Your task to perform on an android device: change alarm snooze length Image 0: 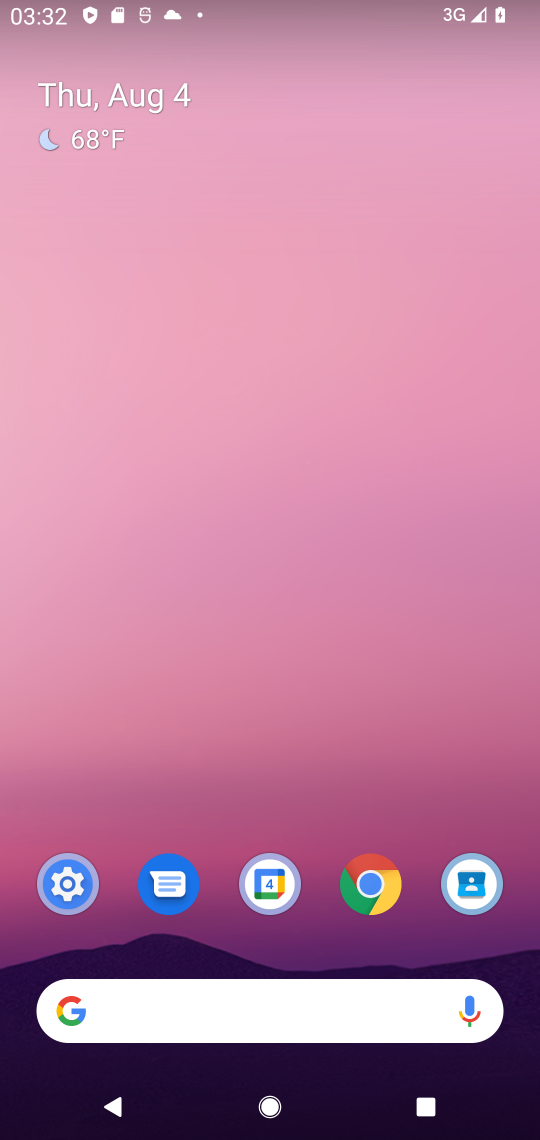
Step 0: press home button
Your task to perform on an android device: change alarm snooze length Image 1: 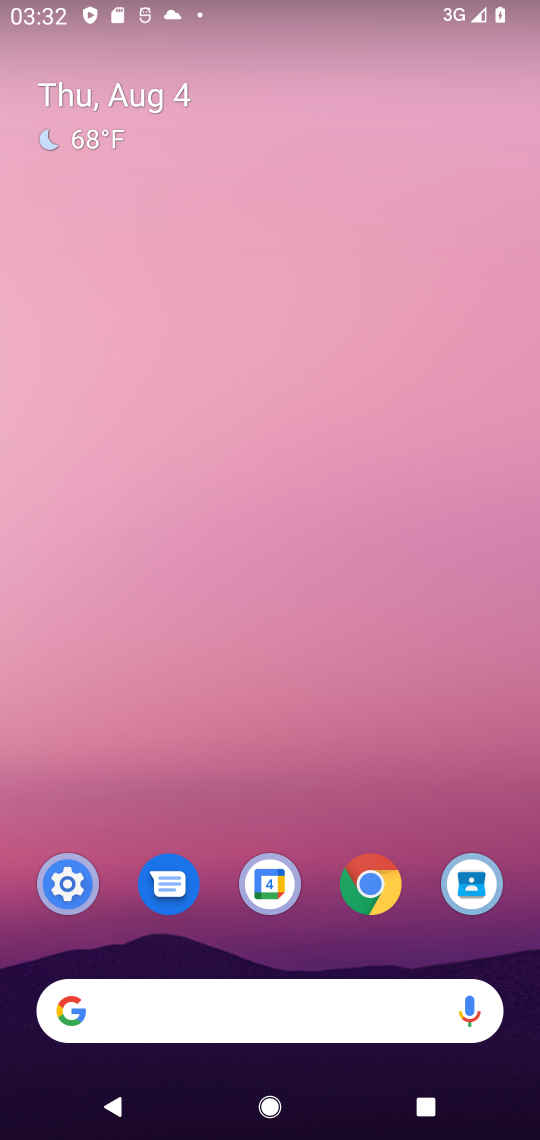
Step 1: drag from (315, 908) to (333, 329)
Your task to perform on an android device: change alarm snooze length Image 2: 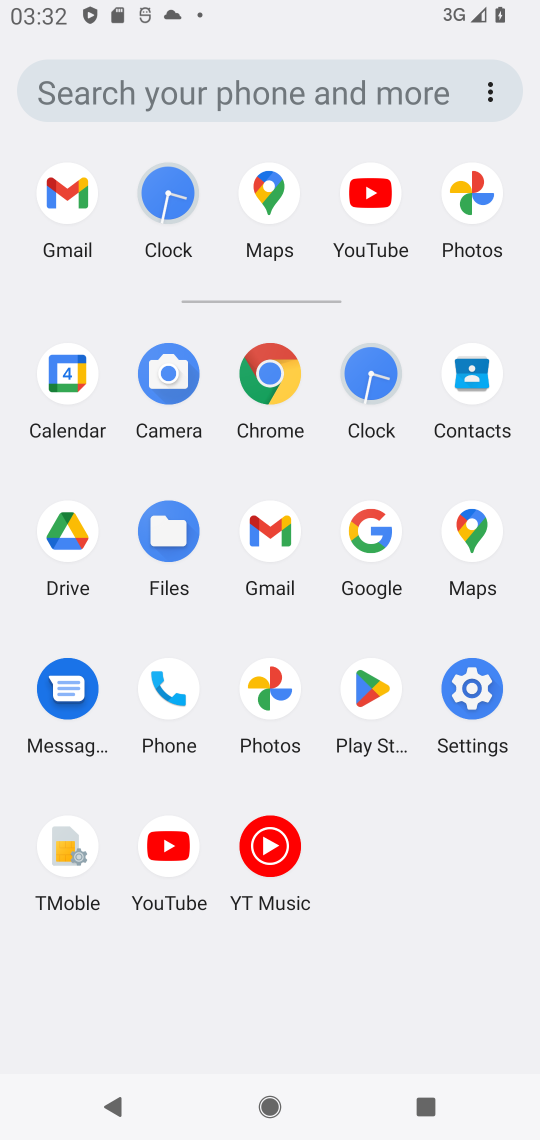
Step 2: click (381, 389)
Your task to perform on an android device: change alarm snooze length Image 3: 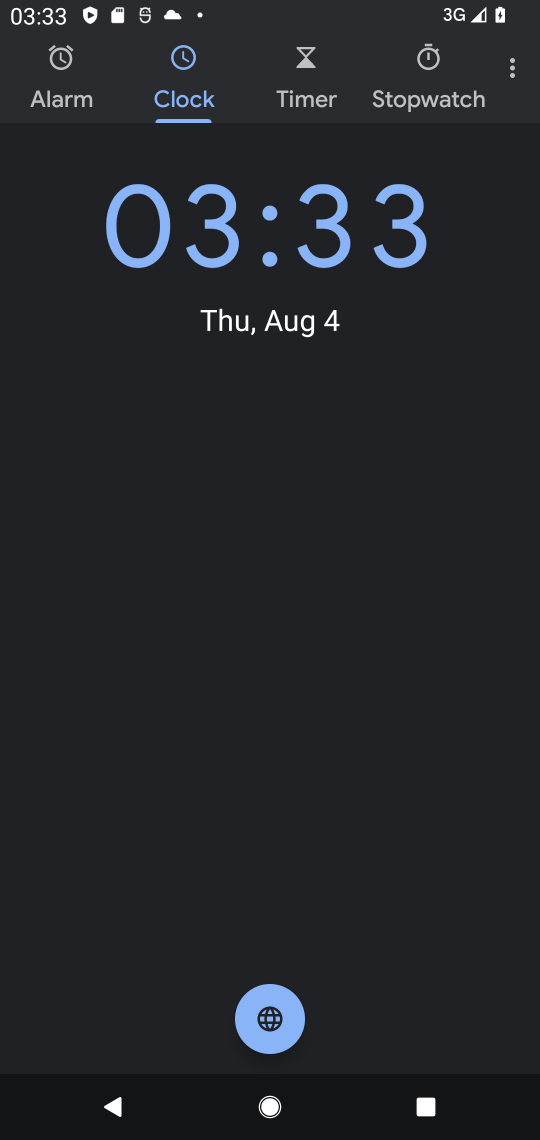
Step 3: click (514, 72)
Your task to perform on an android device: change alarm snooze length Image 4: 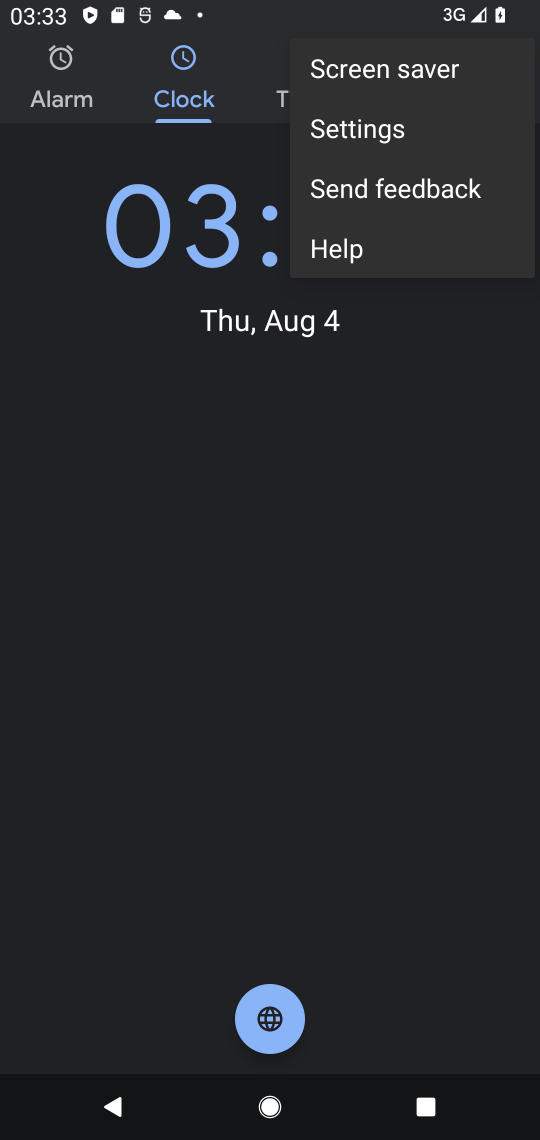
Step 4: click (428, 126)
Your task to perform on an android device: change alarm snooze length Image 5: 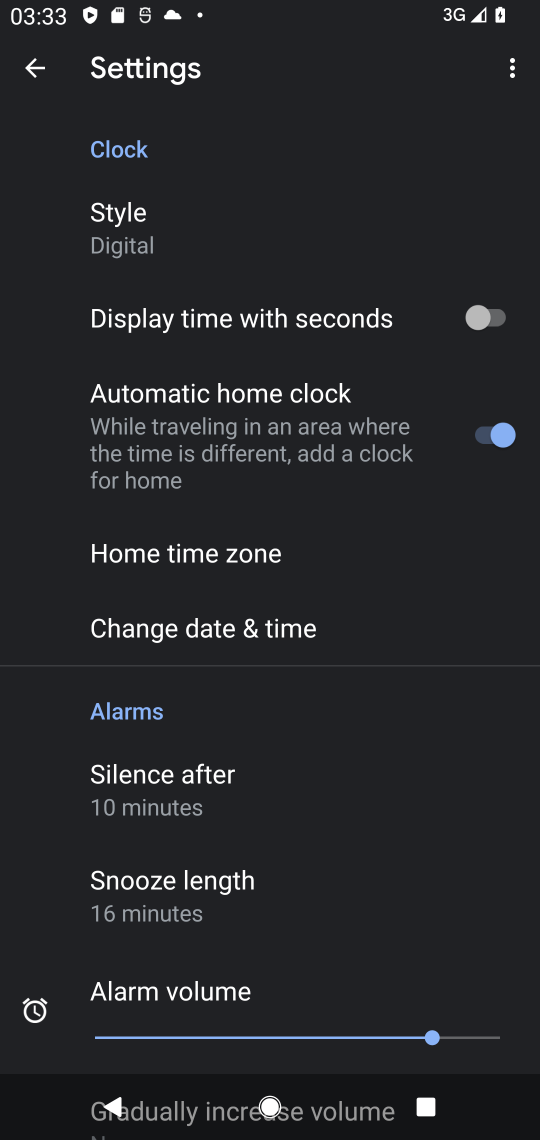
Step 5: drag from (398, 844) to (408, 657)
Your task to perform on an android device: change alarm snooze length Image 6: 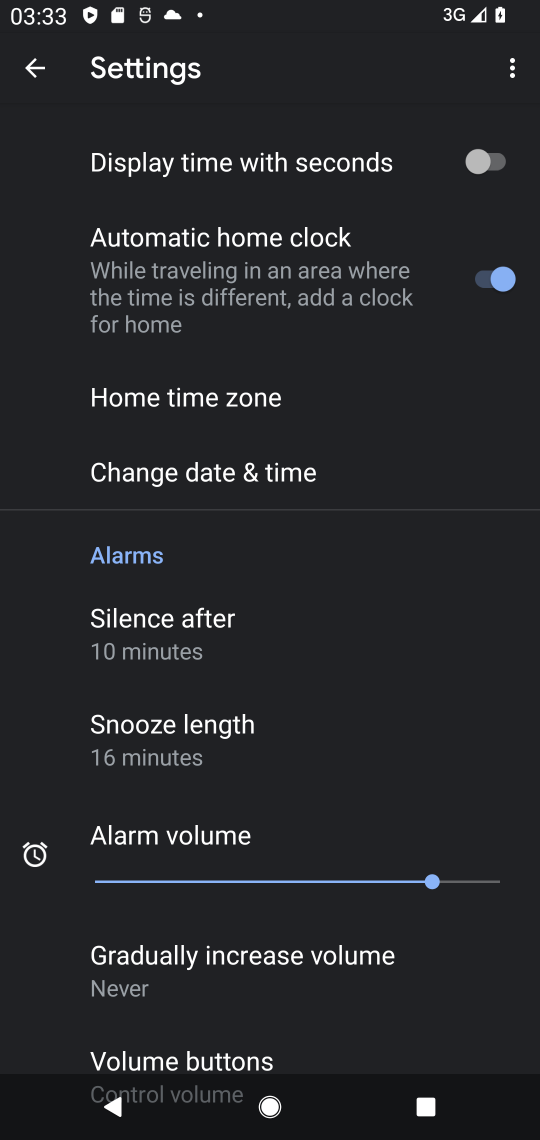
Step 6: drag from (435, 942) to (438, 781)
Your task to perform on an android device: change alarm snooze length Image 7: 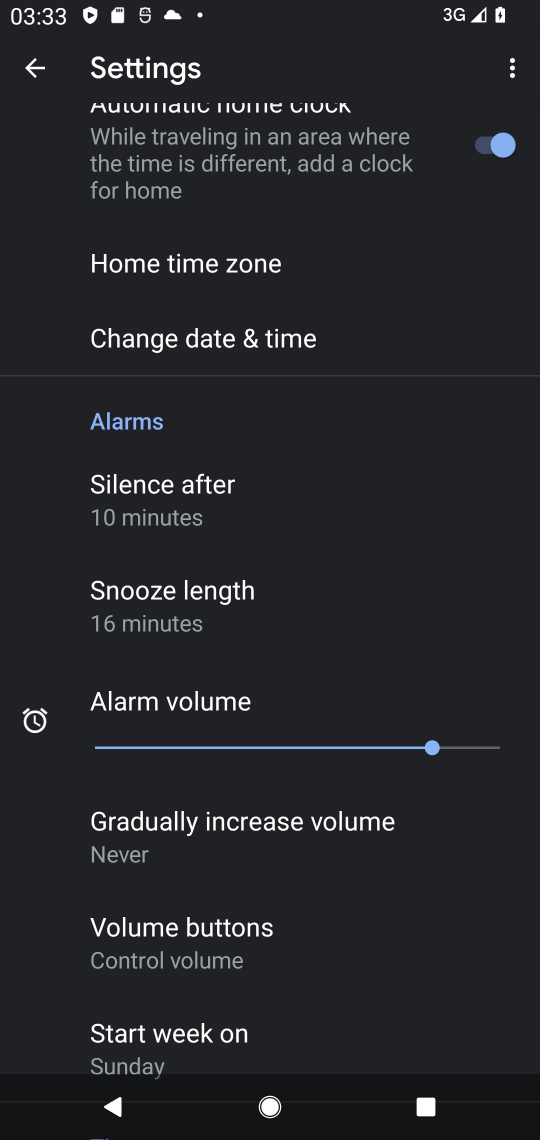
Step 7: drag from (457, 985) to (472, 806)
Your task to perform on an android device: change alarm snooze length Image 8: 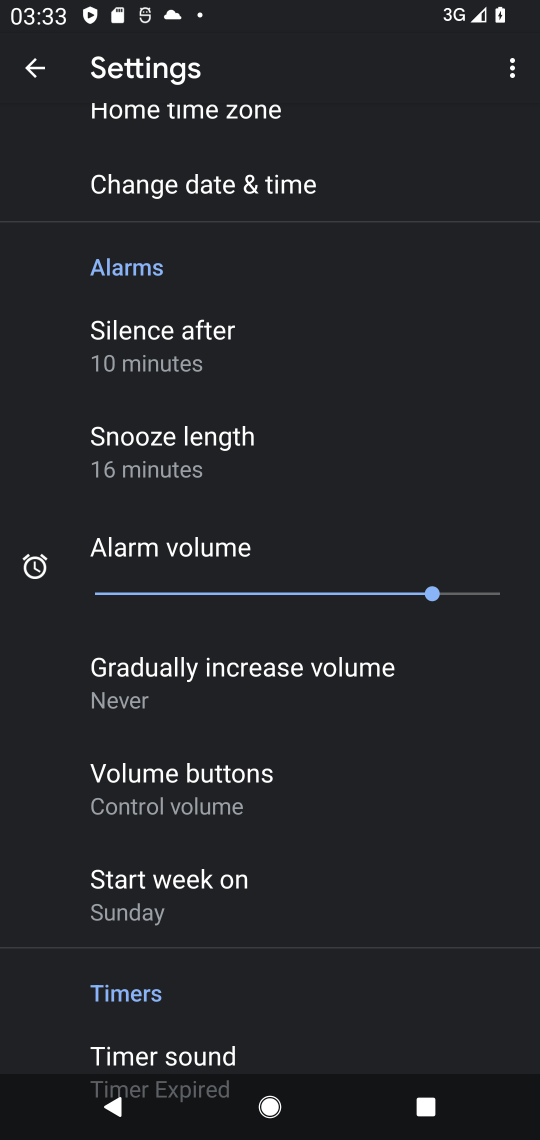
Step 8: drag from (468, 954) to (483, 763)
Your task to perform on an android device: change alarm snooze length Image 9: 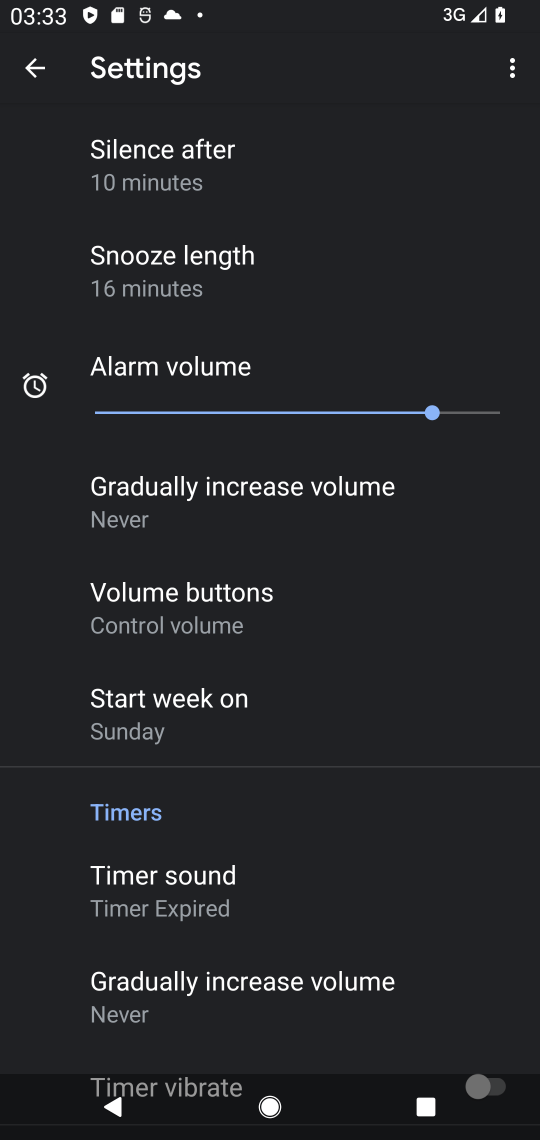
Step 9: drag from (467, 967) to (477, 764)
Your task to perform on an android device: change alarm snooze length Image 10: 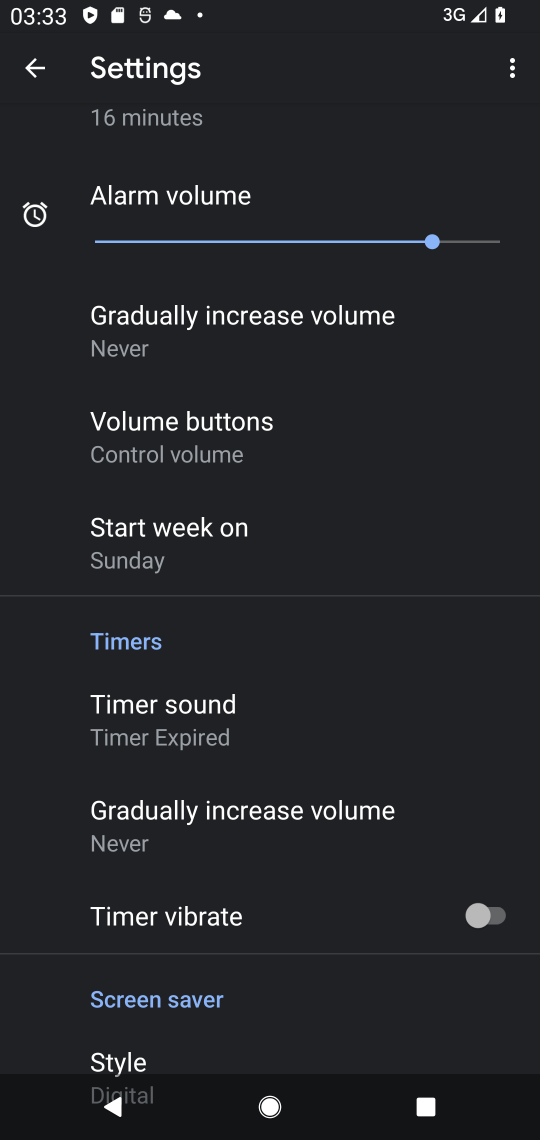
Step 10: drag from (402, 993) to (415, 773)
Your task to perform on an android device: change alarm snooze length Image 11: 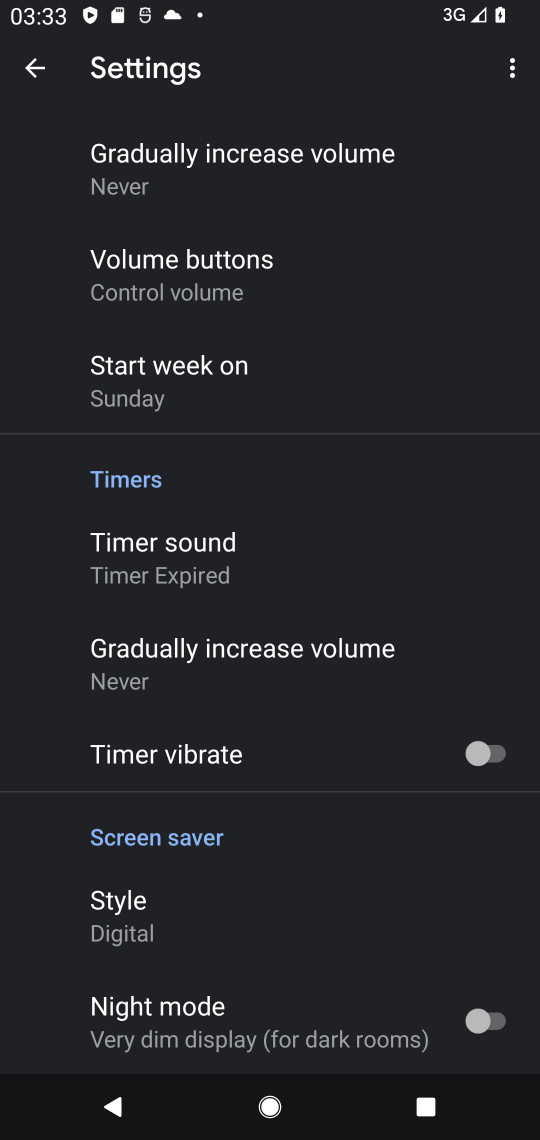
Step 11: drag from (432, 512) to (424, 742)
Your task to perform on an android device: change alarm snooze length Image 12: 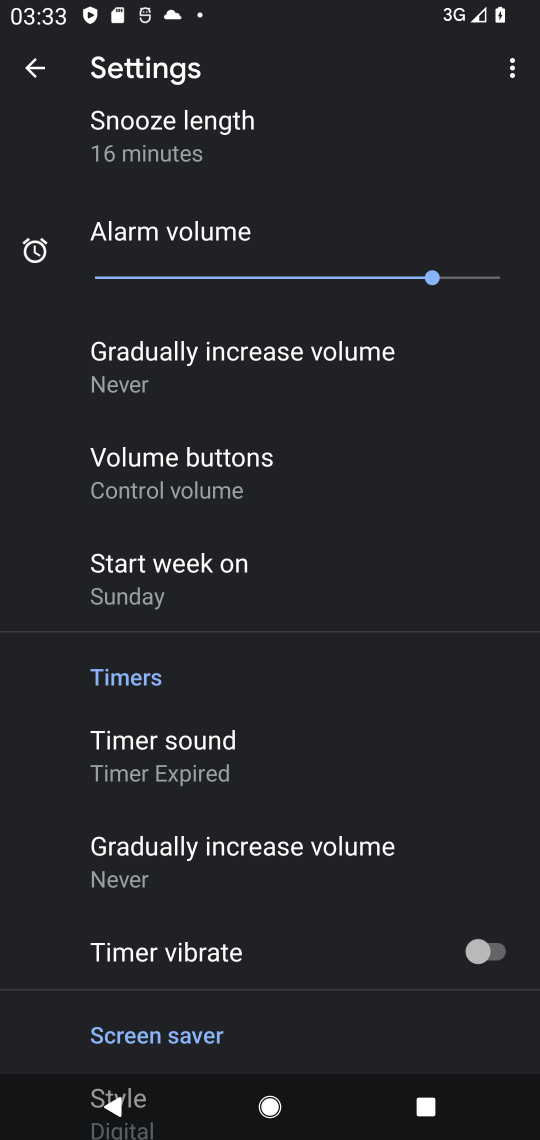
Step 12: drag from (420, 468) to (427, 746)
Your task to perform on an android device: change alarm snooze length Image 13: 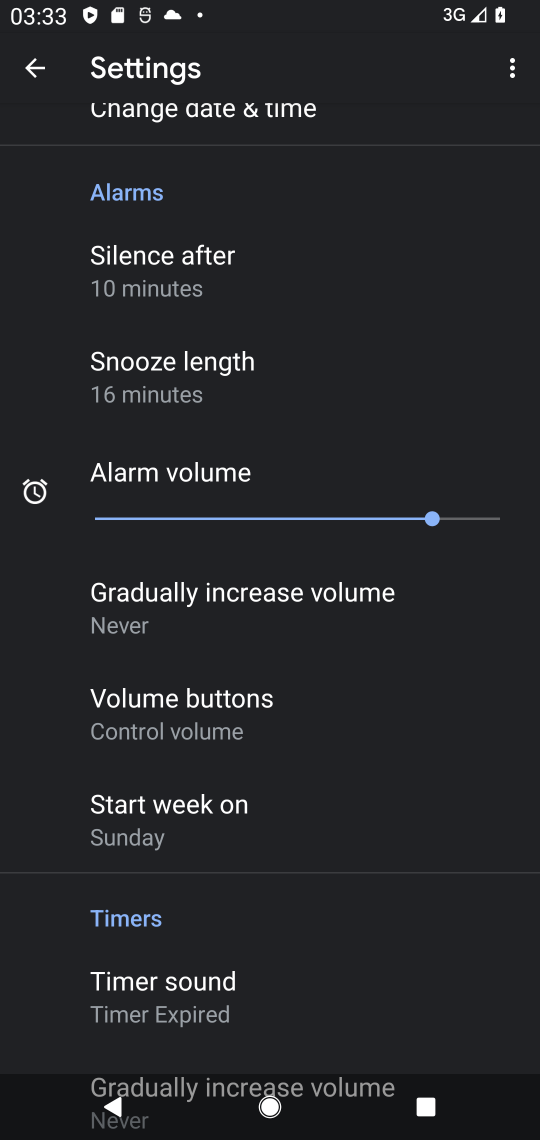
Step 13: drag from (457, 366) to (457, 671)
Your task to perform on an android device: change alarm snooze length Image 14: 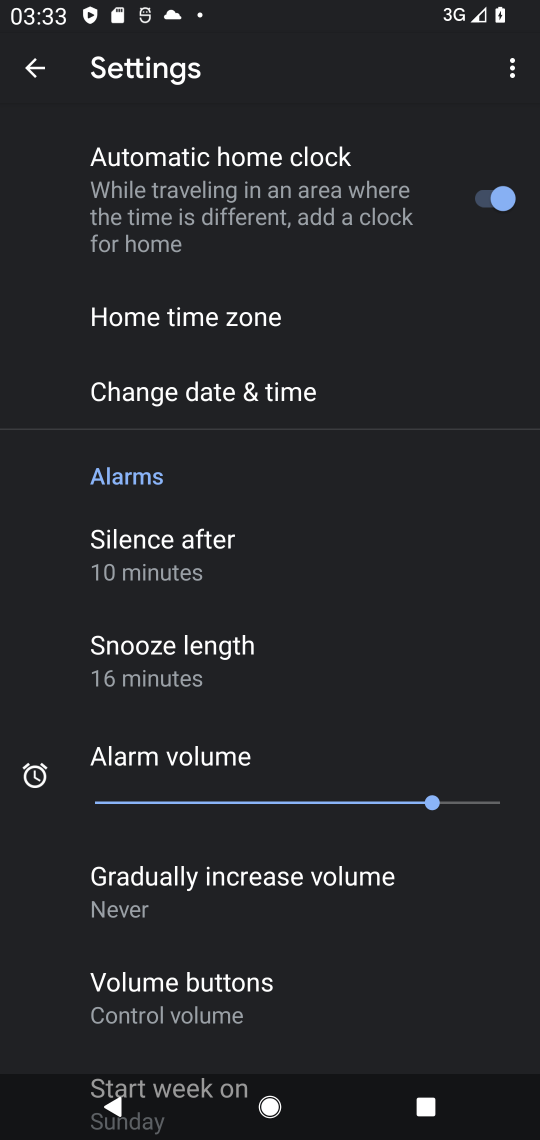
Step 14: click (220, 676)
Your task to perform on an android device: change alarm snooze length Image 15: 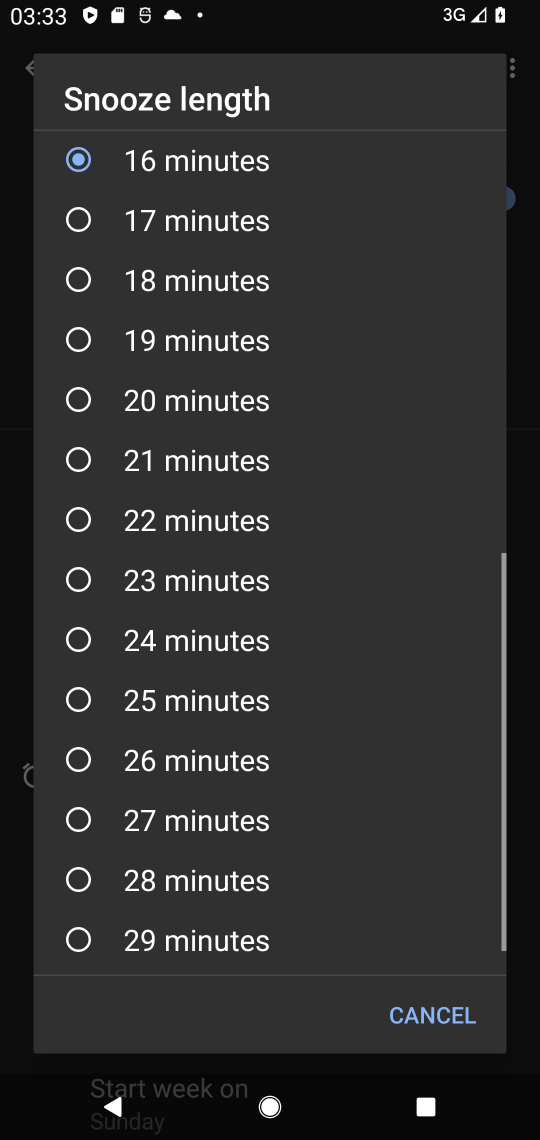
Step 15: click (217, 648)
Your task to perform on an android device: change alarm snooze length Image 16: 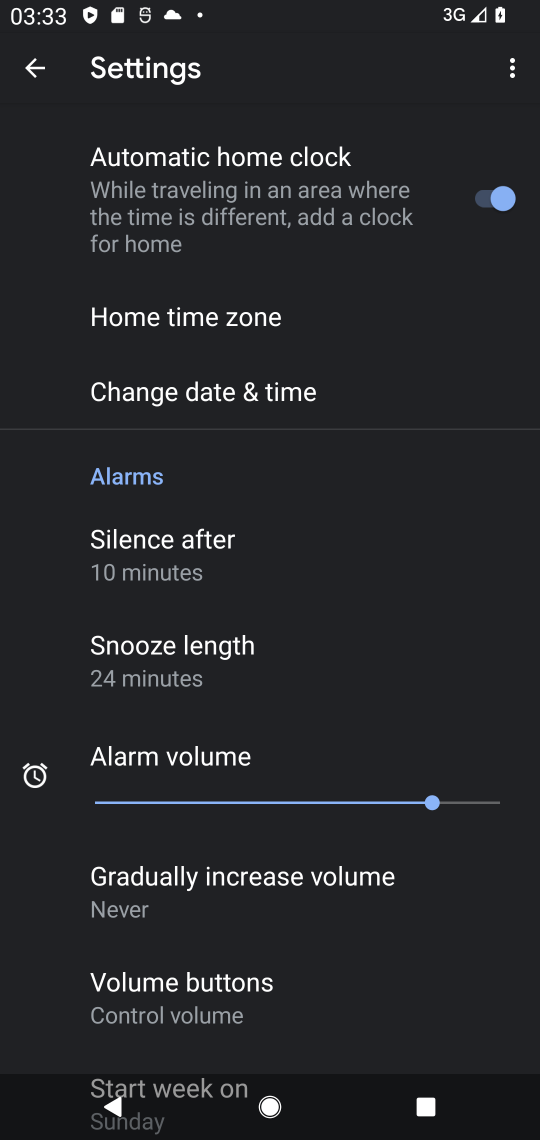
Step 16: task complete